Your task to perform on an android device: Open eBay Image 0: 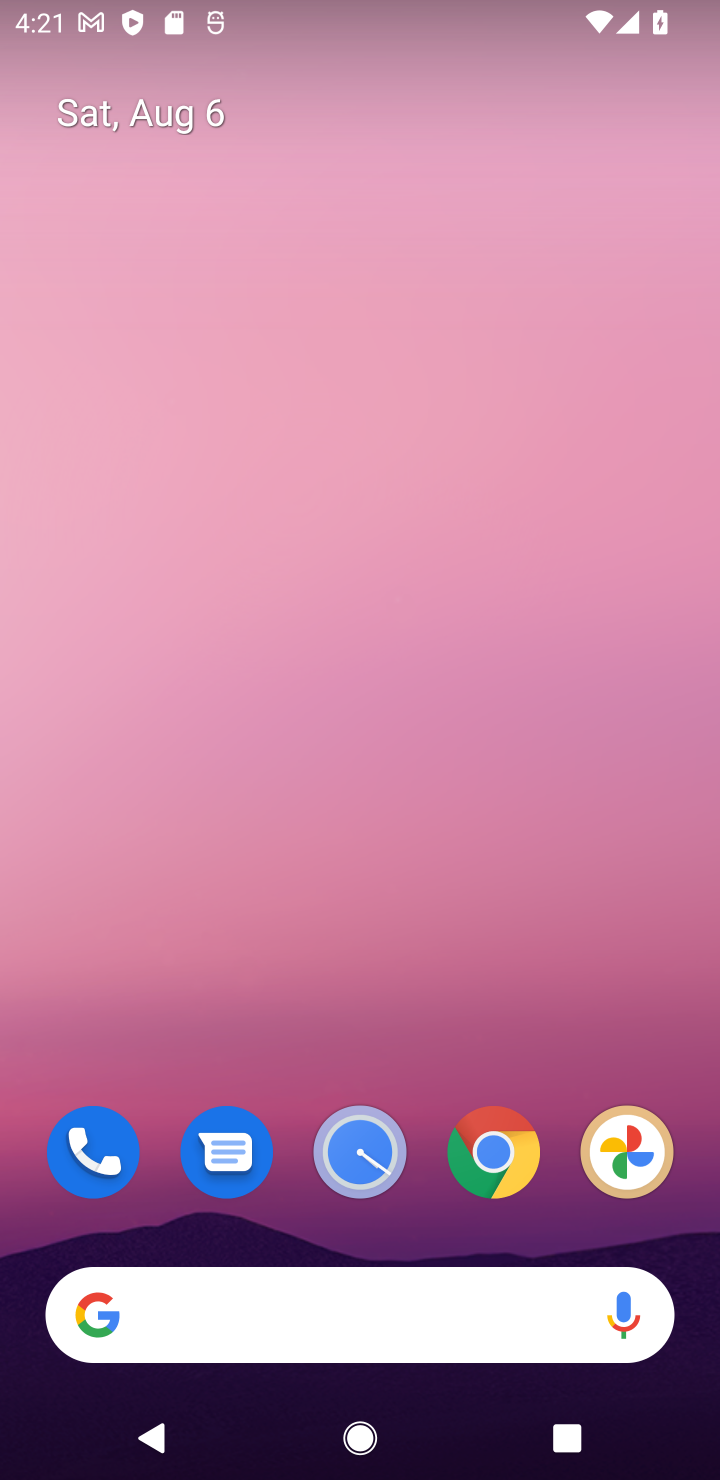
Step 0: drag from (426, 1245) to (430, 0)
Your task to perform on an android device: Open eBay Image 1: 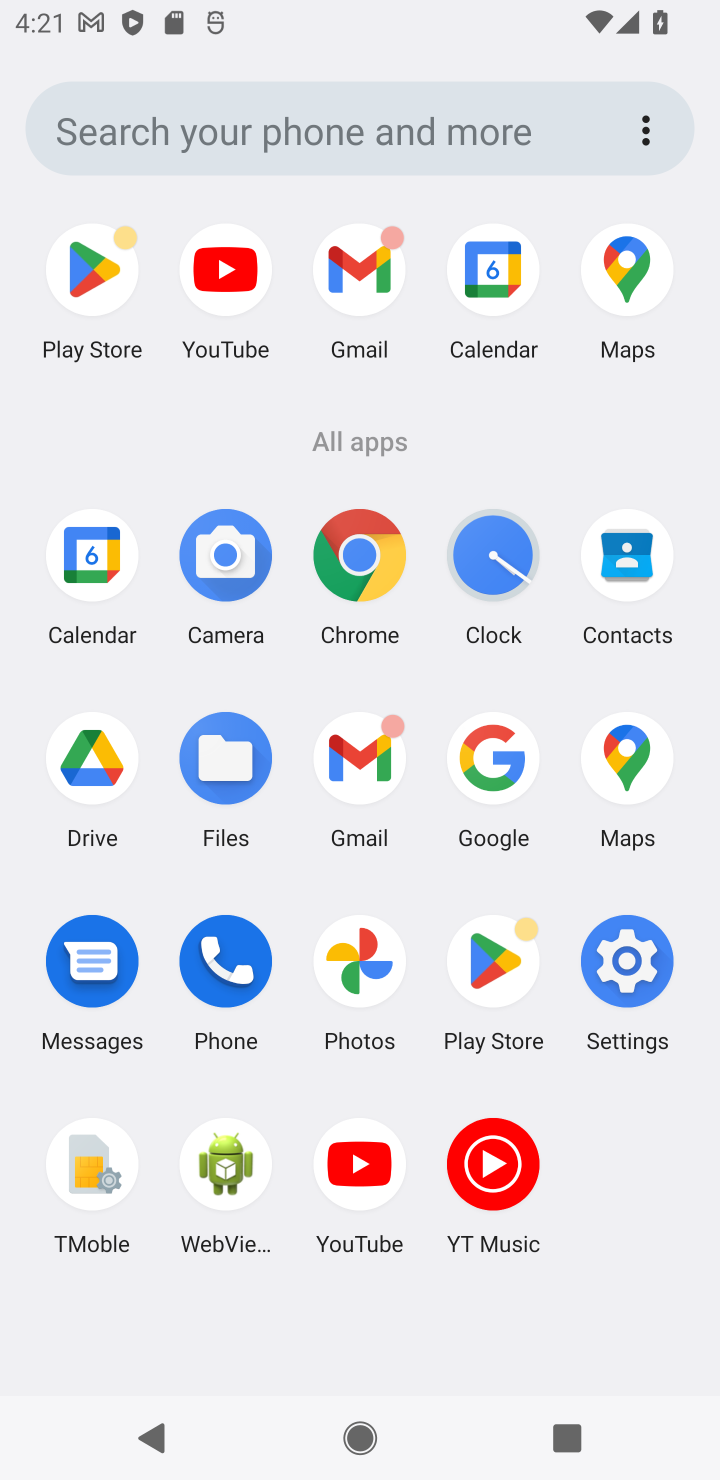
Step 1: click (356, 551)
Your task to perform on an android device: Open eBay Image 2: 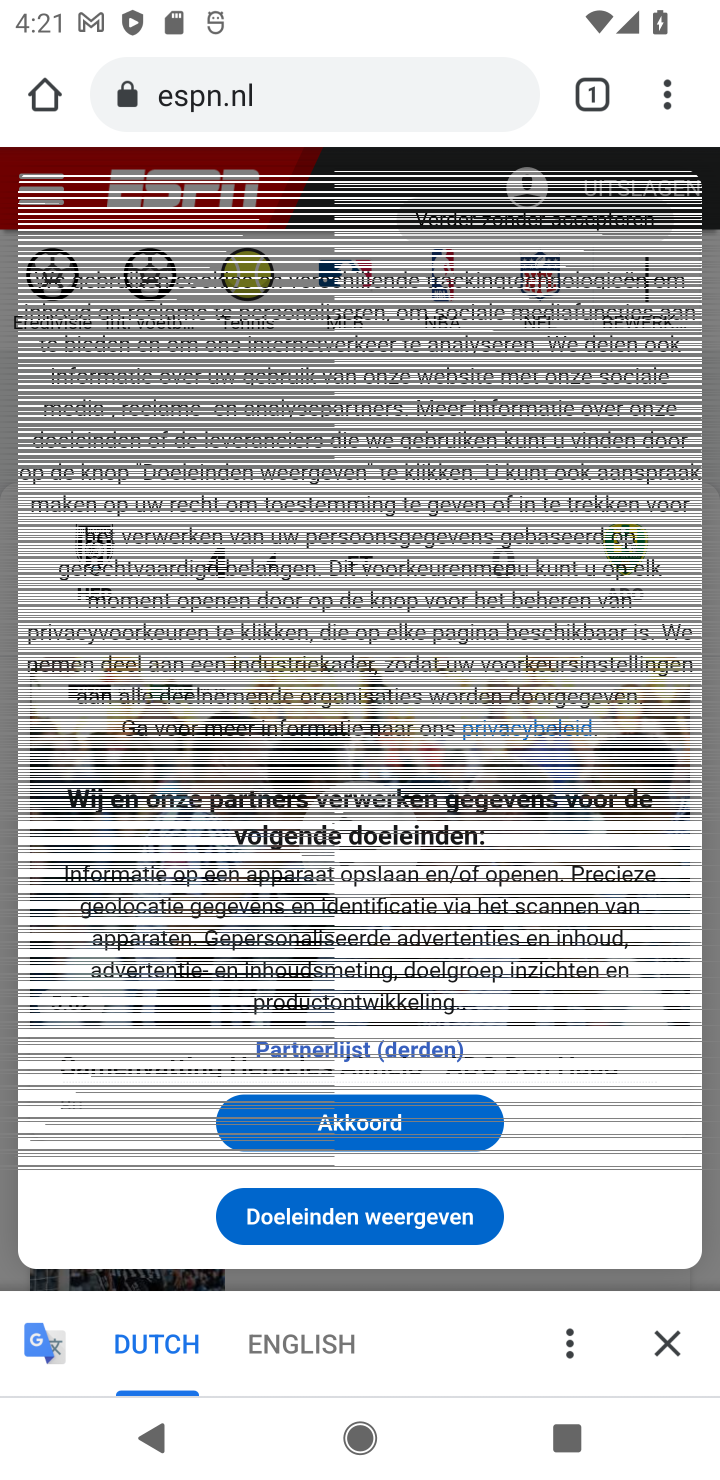
Step 2: drag from (662, 79) to (173, 100)
Your task to perform on an android device: Open eBay Image 3: 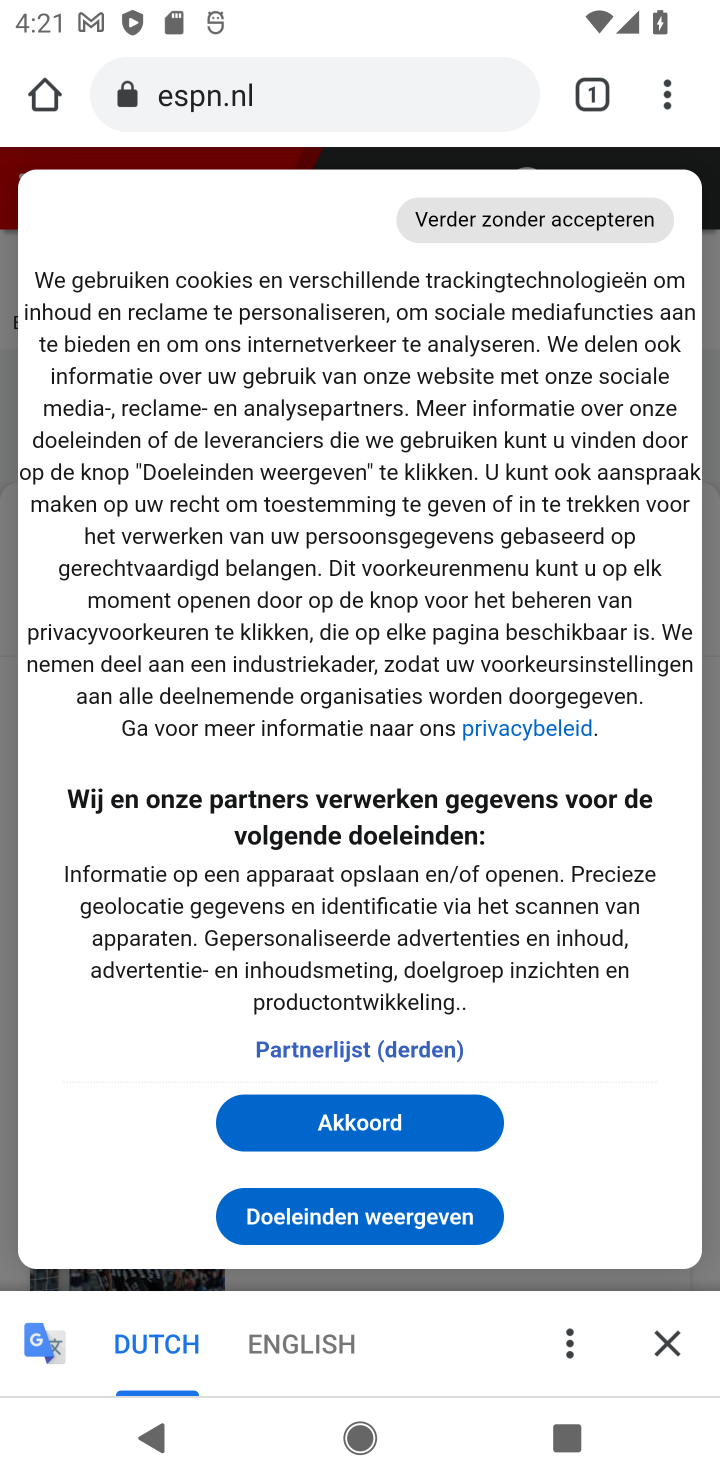
Step 3: click (268, 94)
Your task to perform on an android device: Open eBay Image 4: 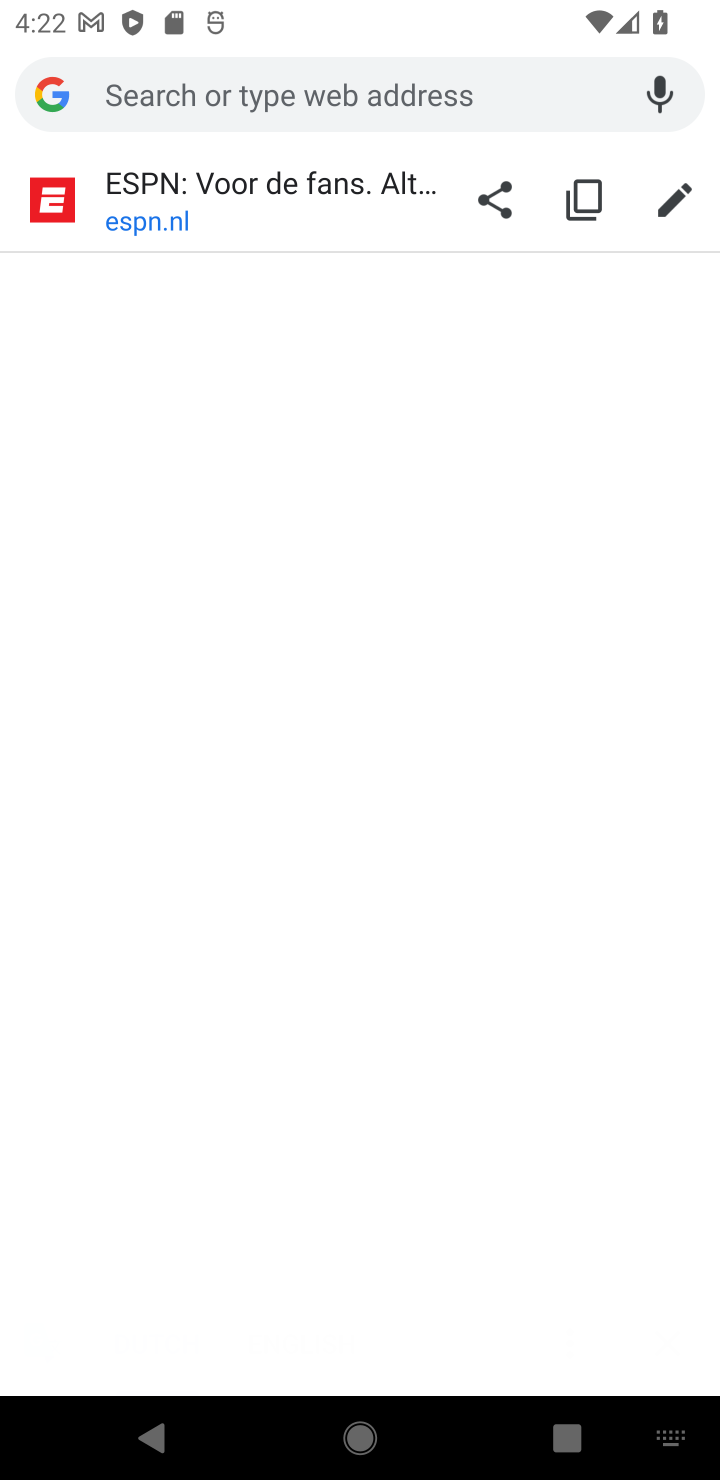
Step 4: type "eBay"
Your task to perform on an android device: Open eBay Image 5: 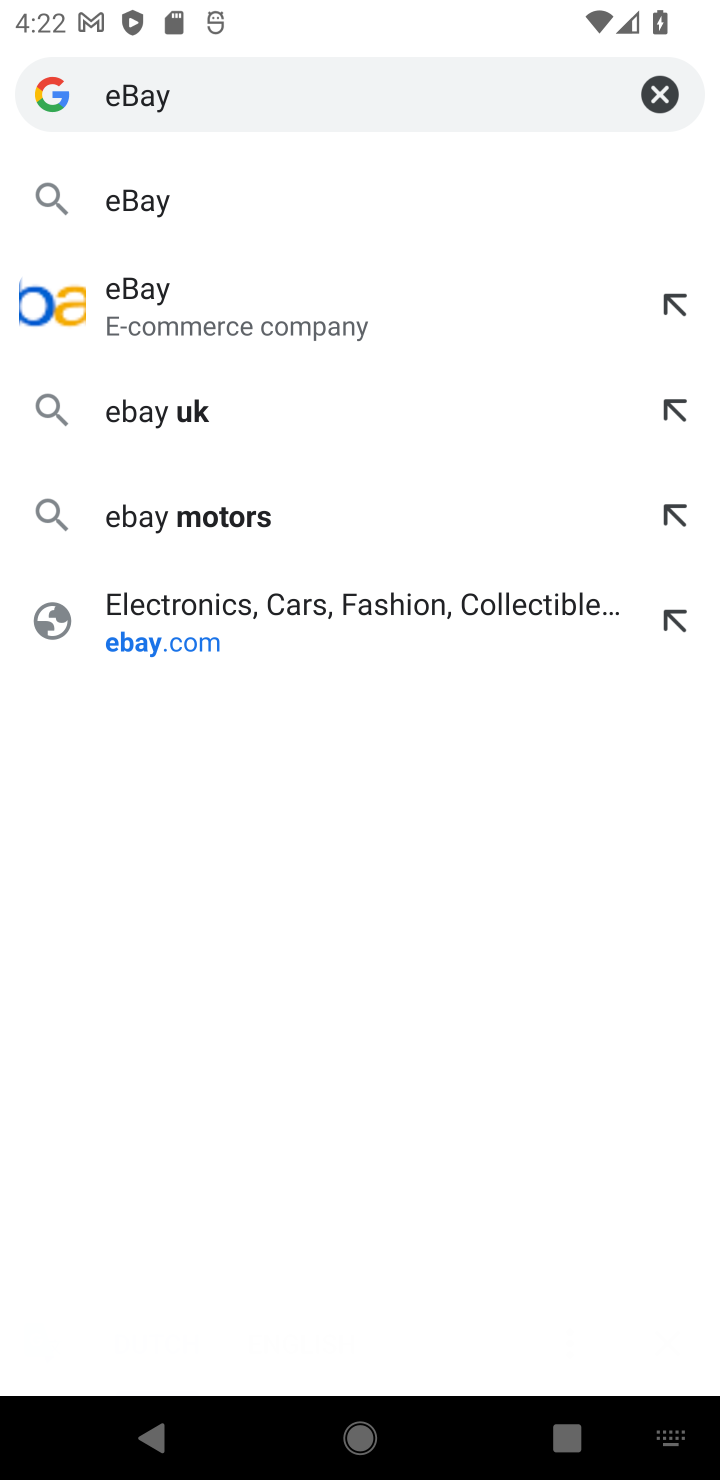
Step 5: click (186, 326)
Your task to perform on an android device: Open eBay Image 6: 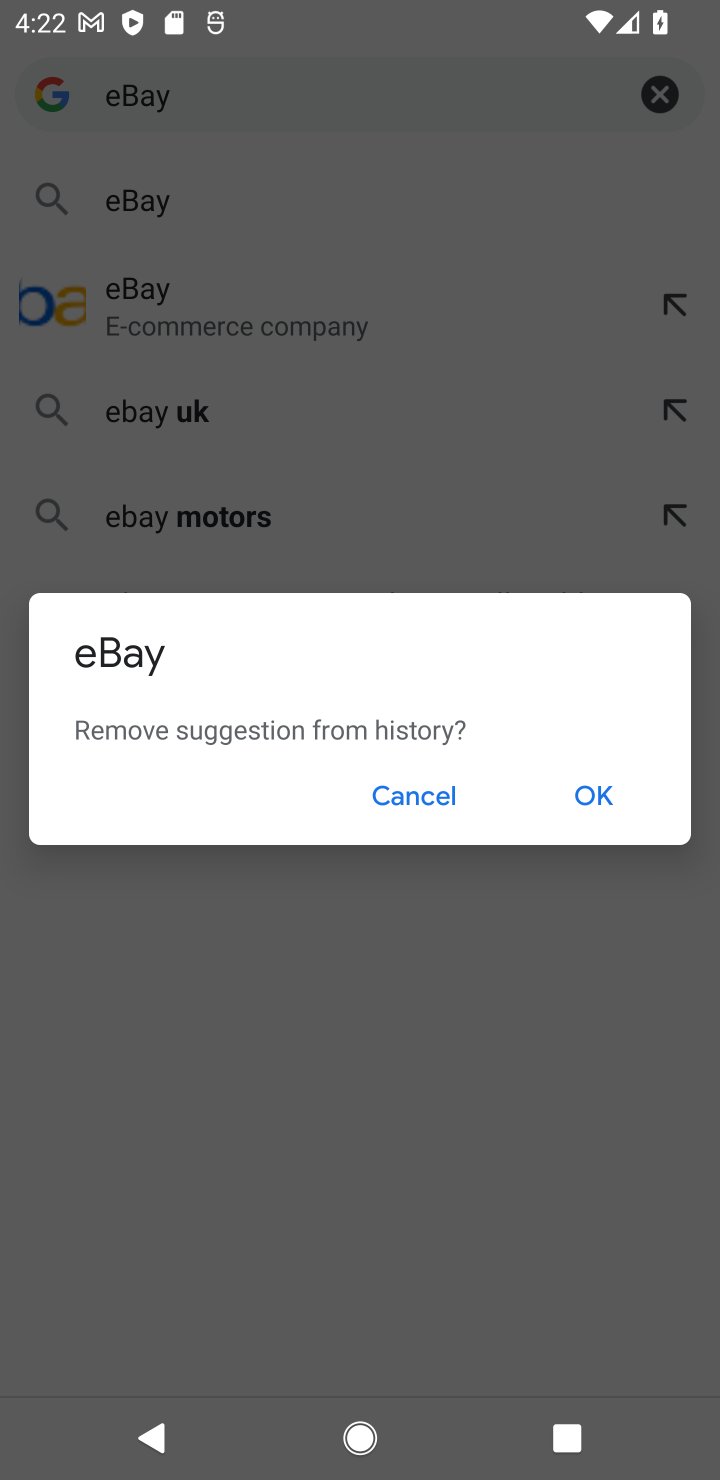
Step 6: click (413, 792)
Your task to perform on an android device: Open eBay Image 7: 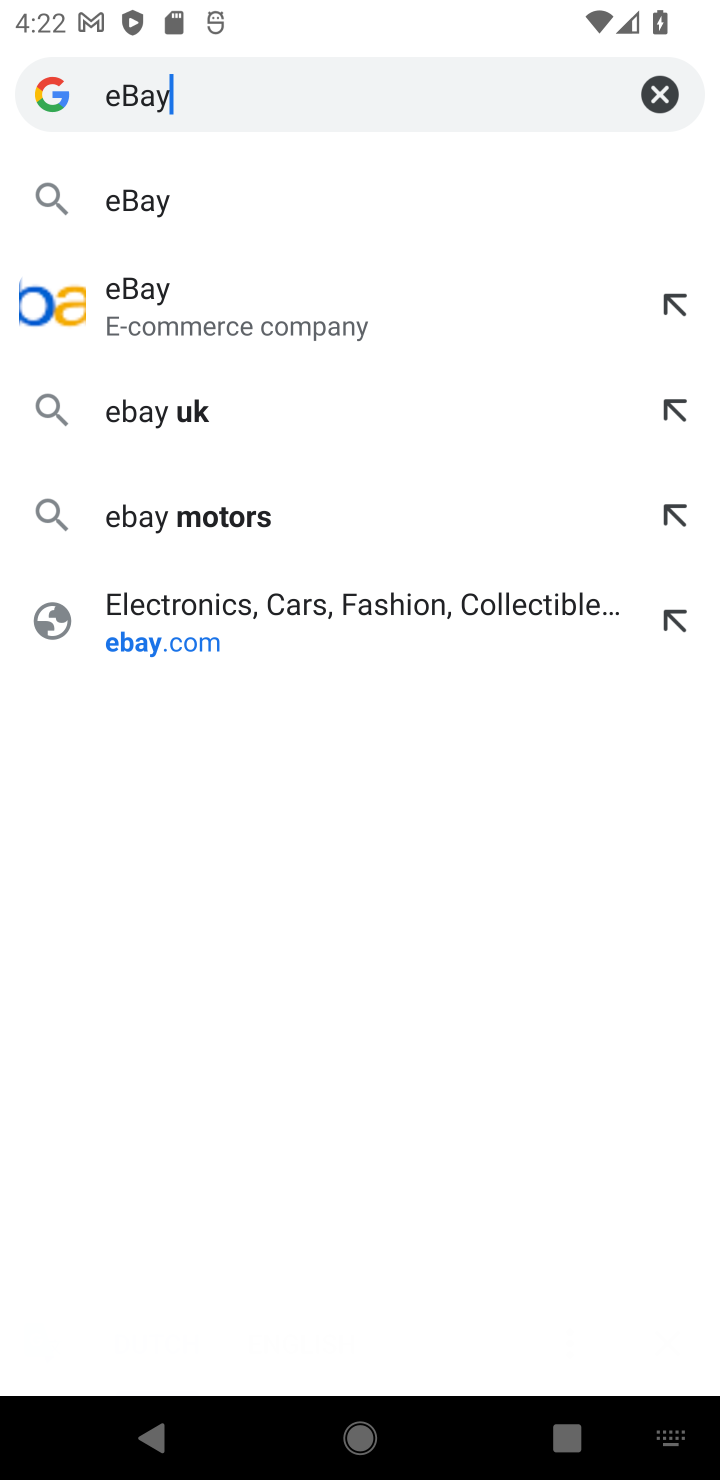
Step 7: click (90, 298)
Your task to perform on an android device: Open eBay Image 8: 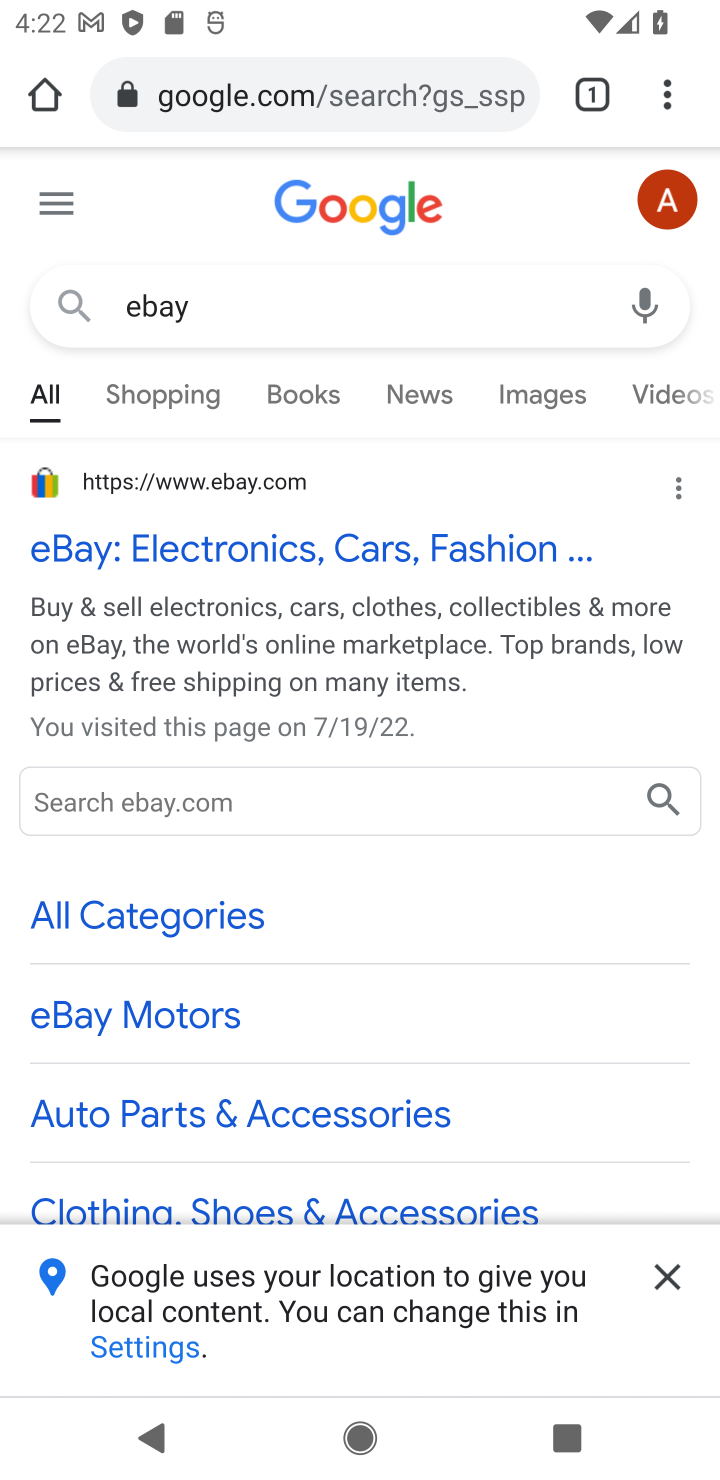
Step 8: click (167, 530)
Your task to perform on an android device: Open eBay Image 9: 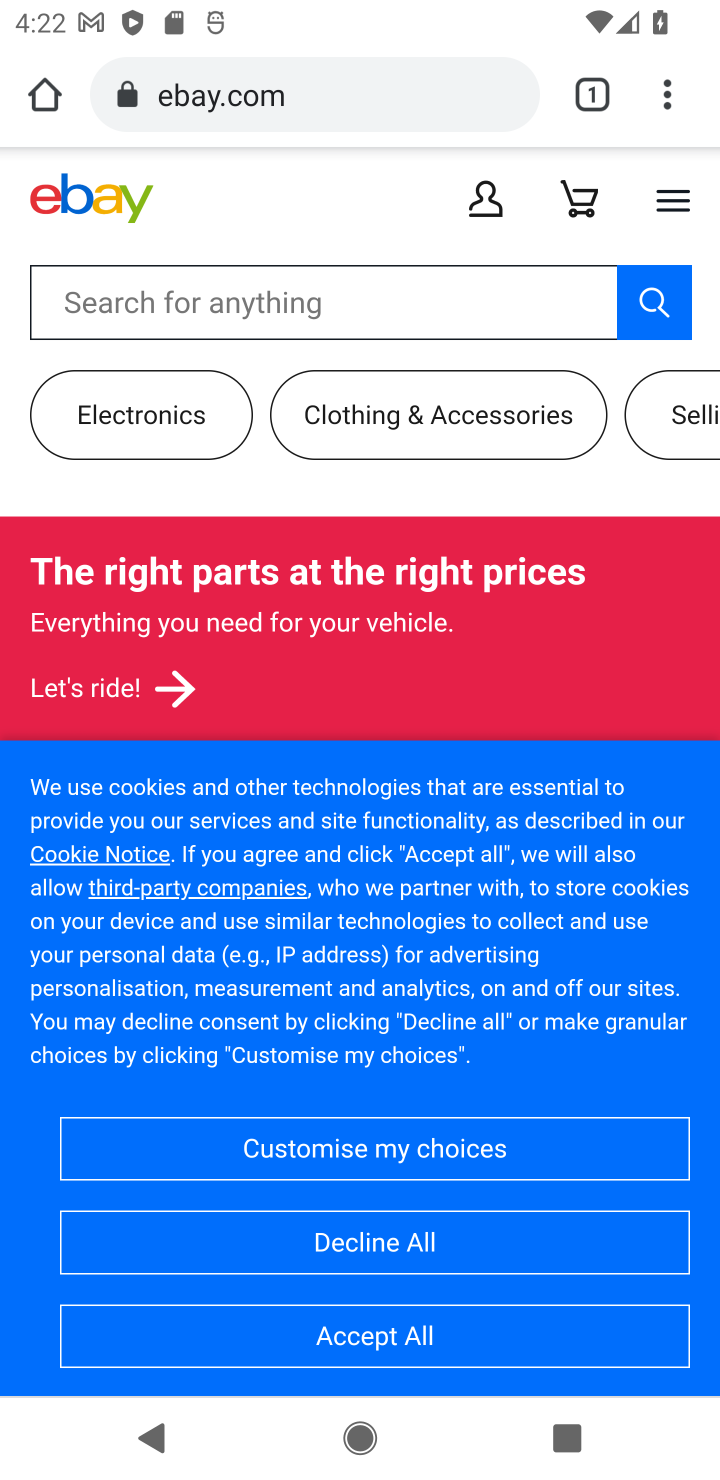
Step 9: task complete